Your task to perform on an android device: Go to accessibility settings Image 0: 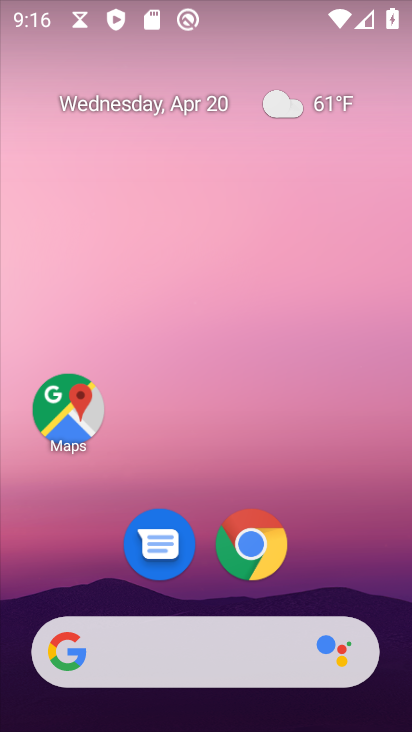
Step 0: drag from (212, 646) to (365, 1)
Your task to perform on an android device: Go to accessibility settings Image 1: 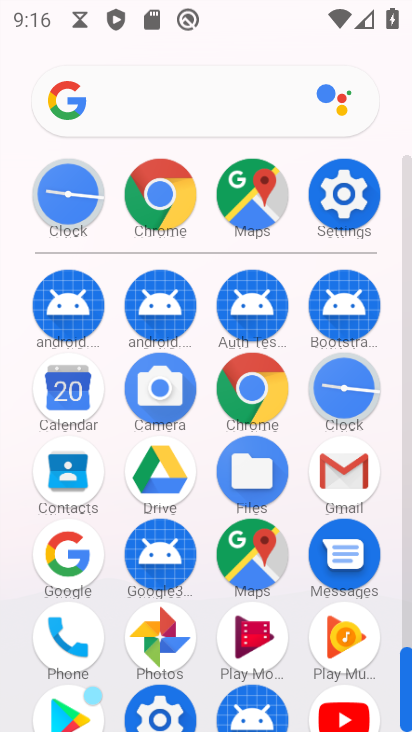
Step 1: click (360, 198)
Your task to perform on an android device: Go to accessibility settings Image 2: 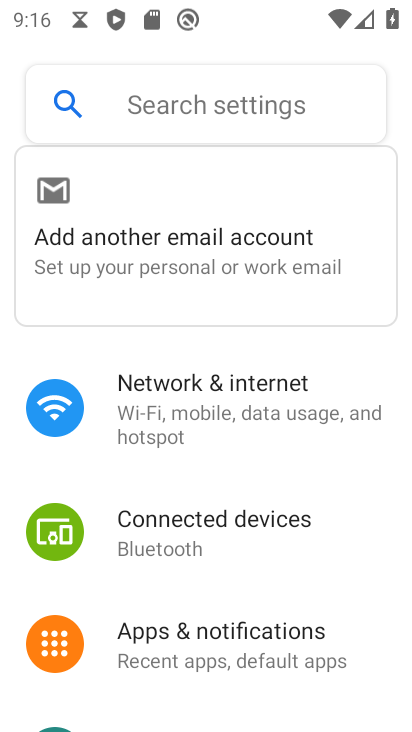
Step 2: drag from (258, 560) to (315, 161)
Your task to perform on an android device: Go to accessibility settings Image 3: 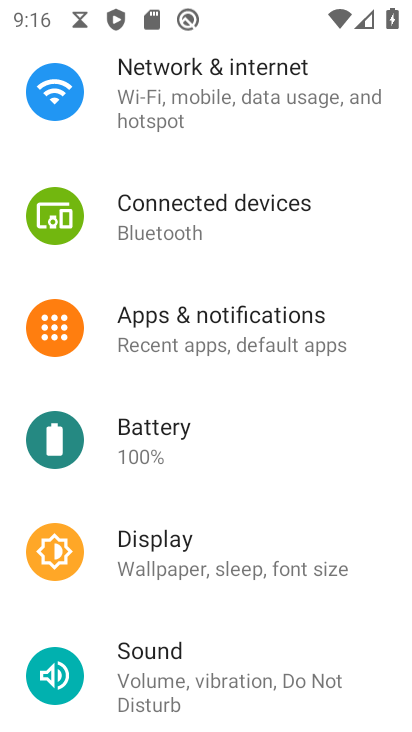
Step 3: drag from (198, 629) to (289, 71)
Your task to perform on an android device: Go to accessibility settings Image 4: 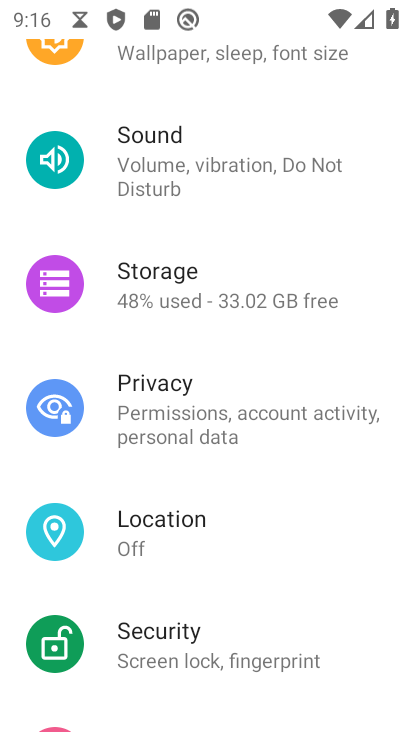
Step 4: drag from (254, 613) to (320, 126)
Your task to perform on an android device: Go to accessibility settings Image 5: 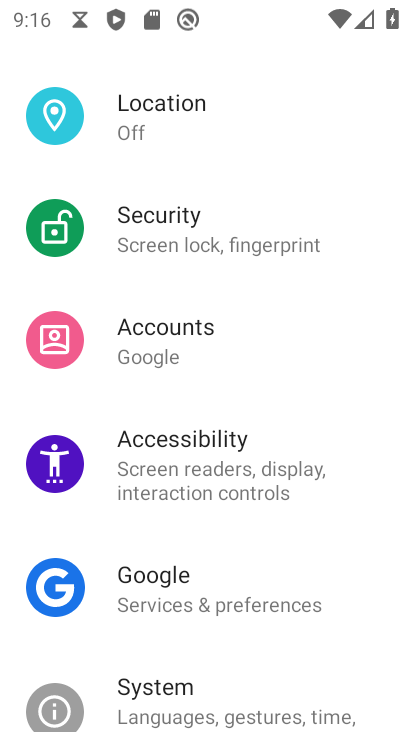
Step 5: click (222, 453)
Your task to perform on an android device: Go to accessibility settings Image 6: 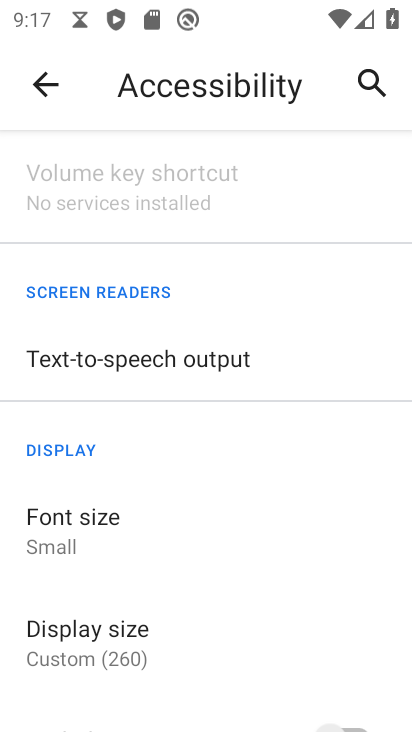
Step 6: task complete